Your task to perform on an android device: turn off notifications in google photos Image 0: 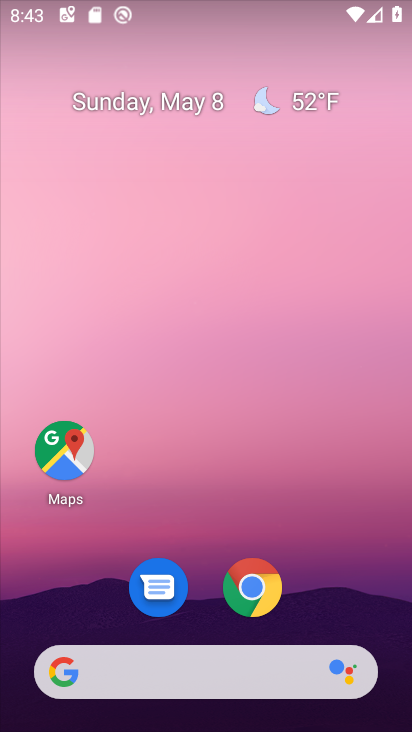
Step 0: drag from (372, 599) to (312, 240)
Your task to perform on an android device: turn off notifications in google photos Image 1: 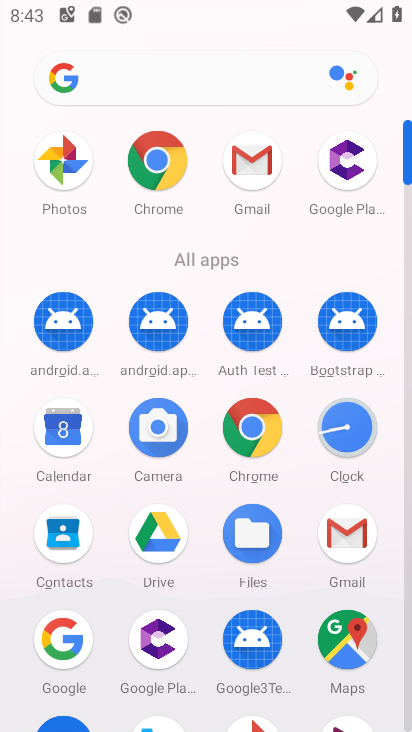
Step 1: click (76, 153)
Your task to perform on an android device: turn off notifications in google photos Image 2: 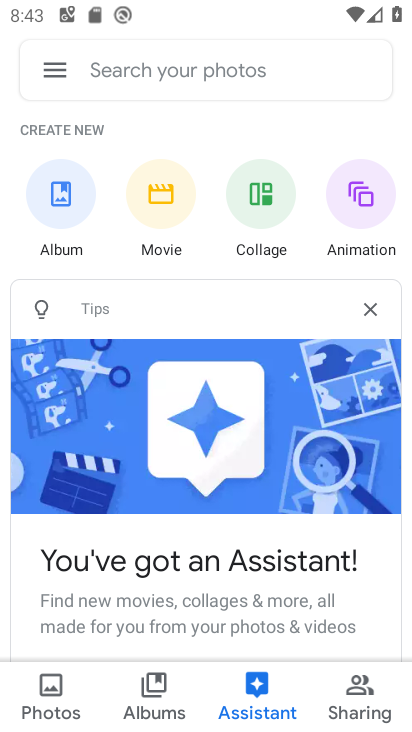
Step 2: click (64, 77)
Your task to perform on an android device: turn off notifications in google photos Image 3: 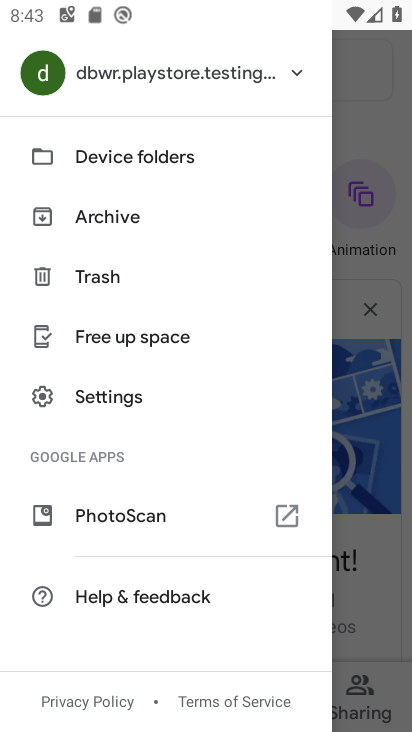
Step 3: click (160, 407)
Your task to perform on an android device: turn off notifications in google photos Image 4: 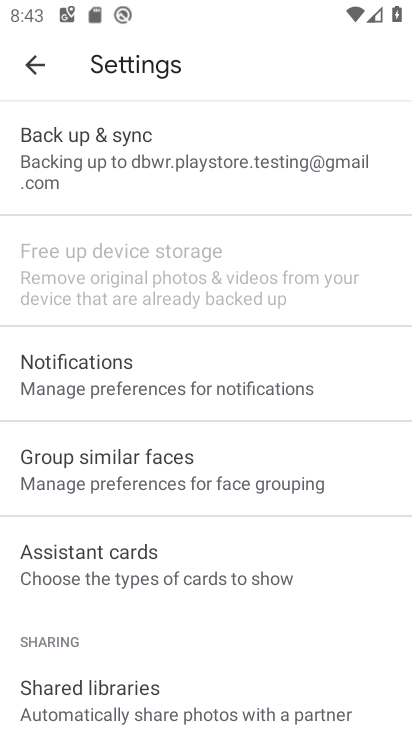
Step 4: click (208, 377)
Your task to perform on an android device: turn off notifications in google photos Image 5: 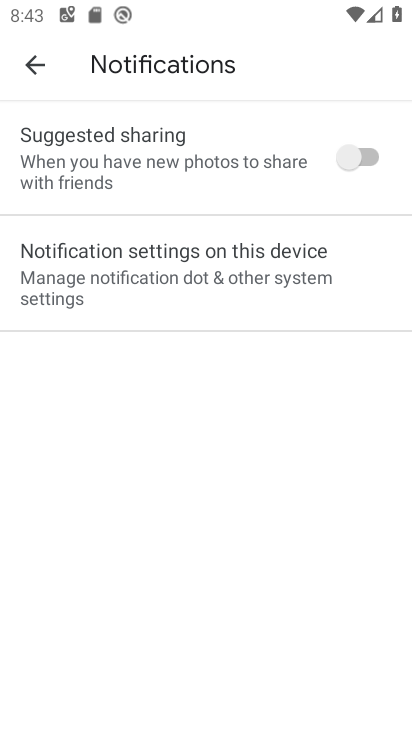
Step 5: click (294, 256)
Your task to perform on an android device: turn off notifications in google photos Image 6: 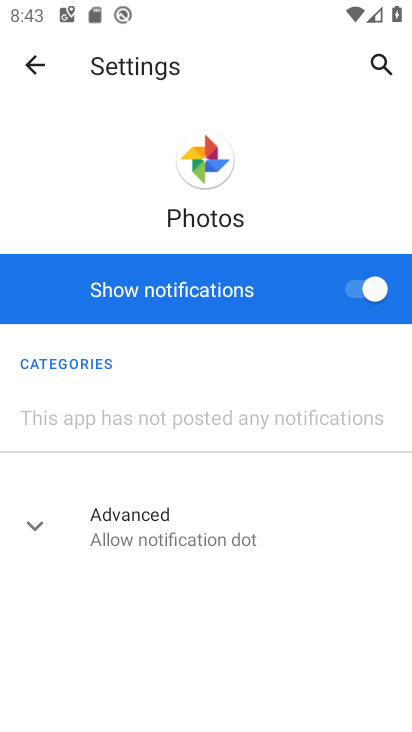
Step 6: click (356, 288)
Your task to perform on an android device: turn off notifications in google photos Image 7: 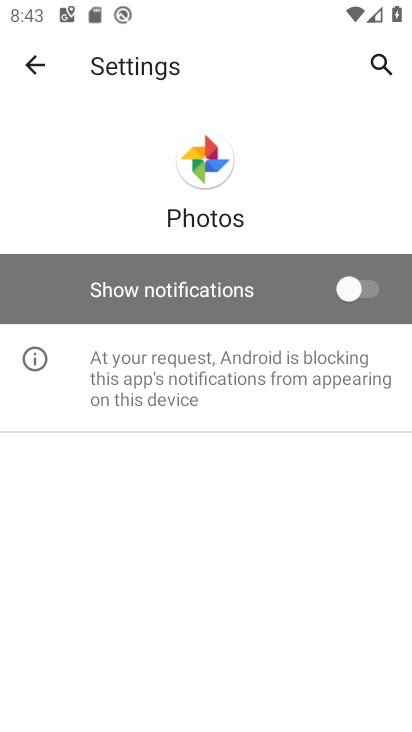
Step 7: task complete